Your task to perform on an android device: What's the weather today? Image 0: 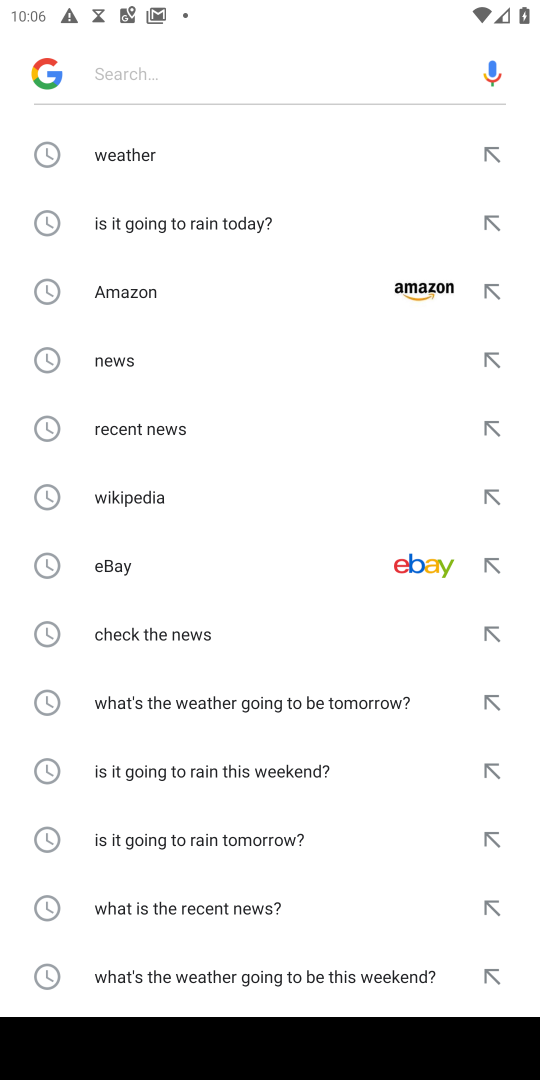
Step 0: press home button
Your task to perform on an android device: What's the weather today? Image 1: 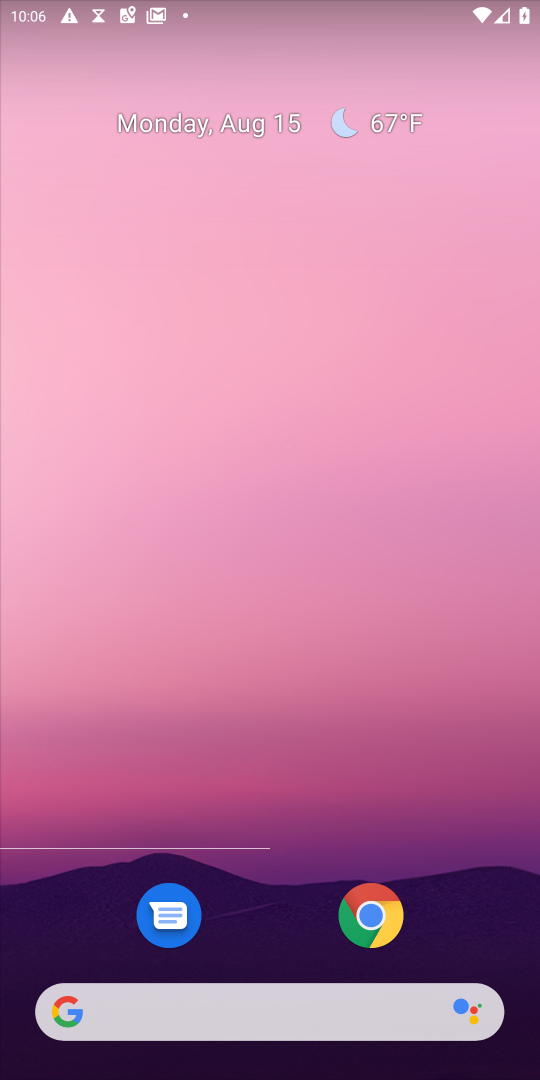
Step 1: click (61, 1011)
Your task to perform on an android device: What's the weather today? Image 2: 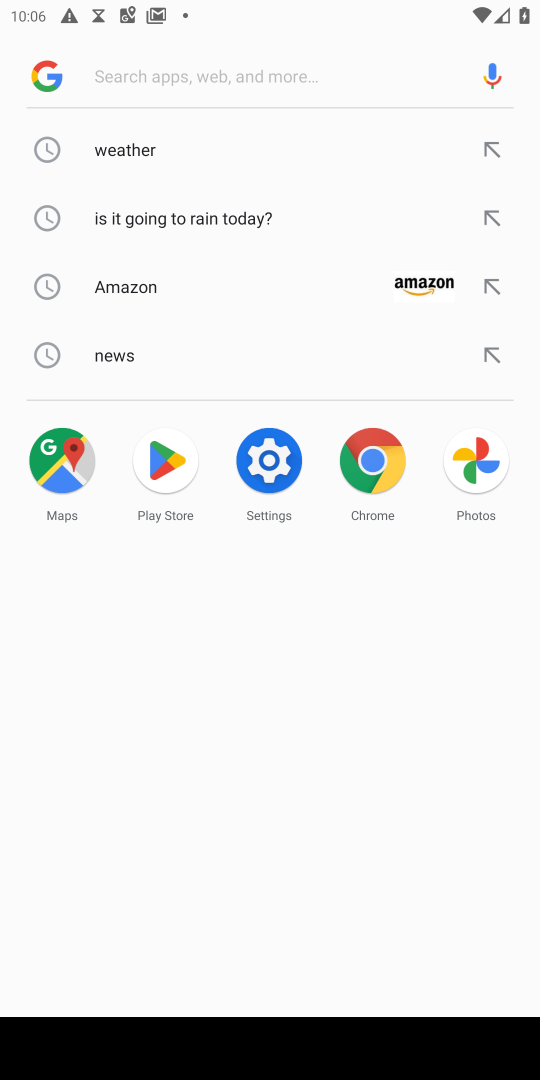
Step 2: type "What's the weather today?"
Your task to perform on an android device: What's the weather today? Image 3: 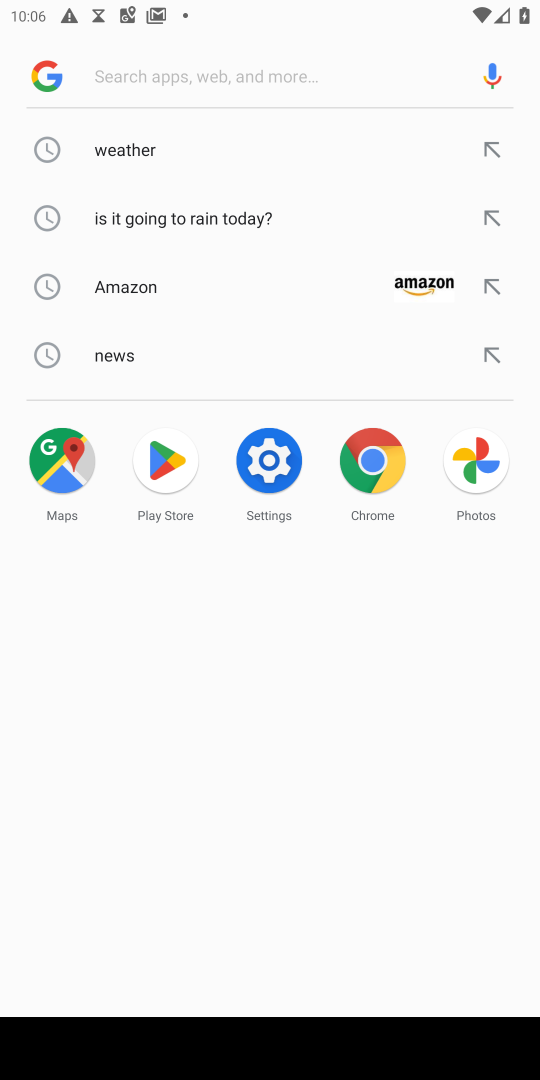
Step 3: click (189, 82)
Your task to perform on an android device: What's the weather today? Image 4: 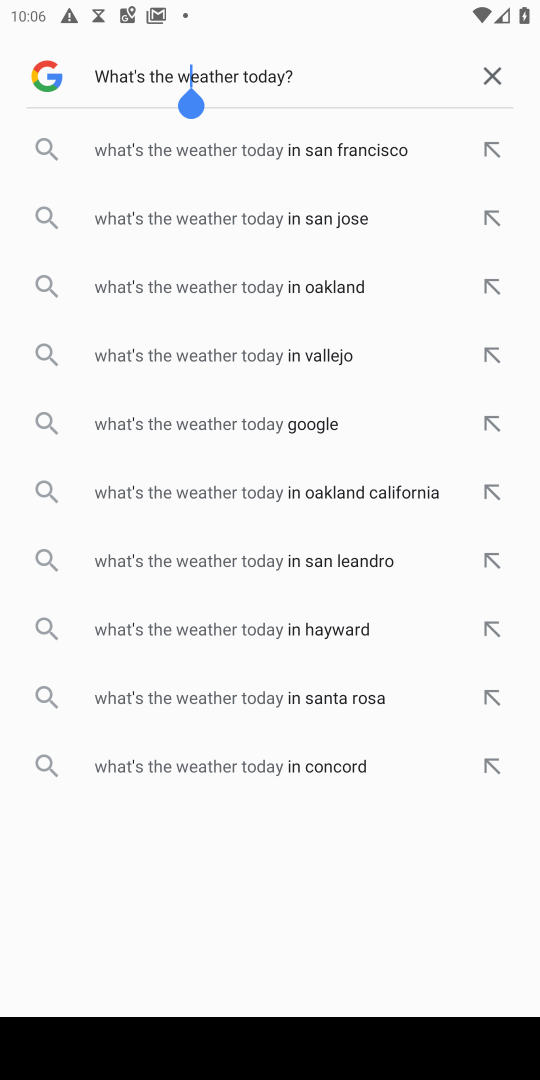
Step 4: press enter
Your task to perform on an android device: What's the weather today? Image 5: 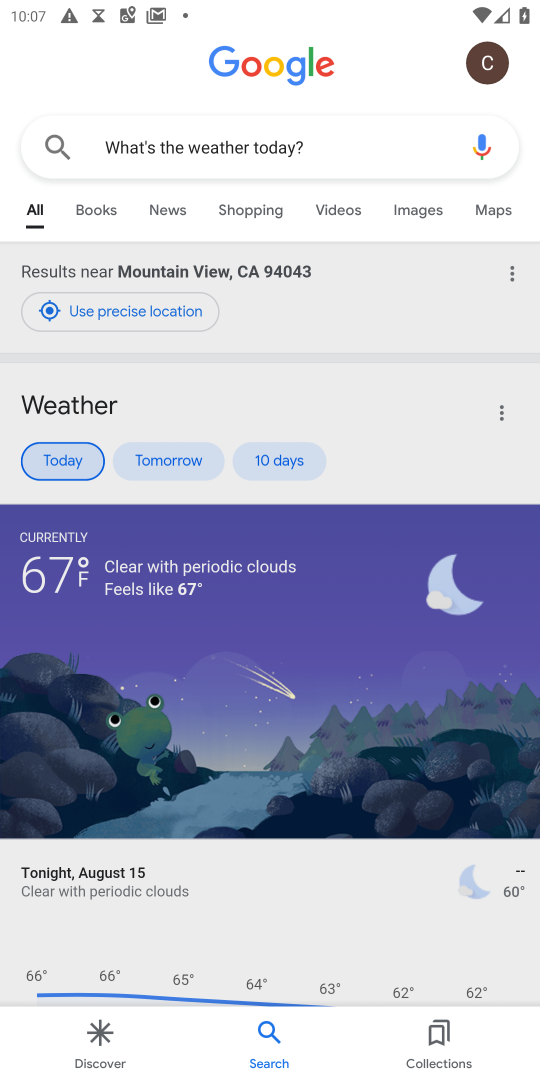
Step 5: task complete